Your task to perform on an android device: Open sound settings Image 0: 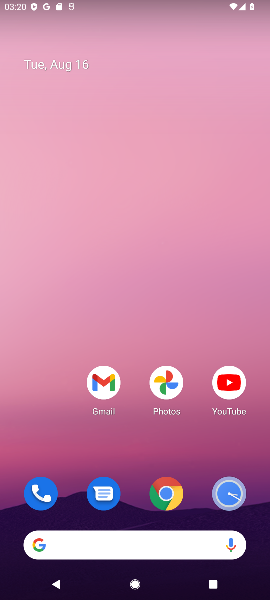
Step 0: press home button
Your task to perform on an android device: Open sound settings Image 1: 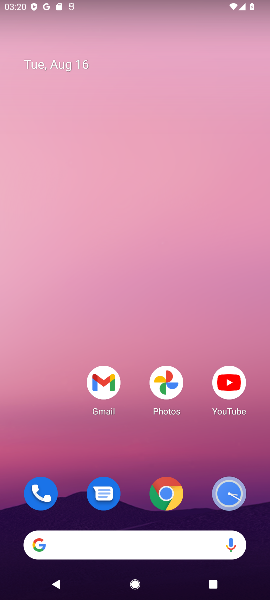
Step 1: drag from (59, 451) to (79, 123)
Your task to perform on an android device: Open sound settings Image 2: 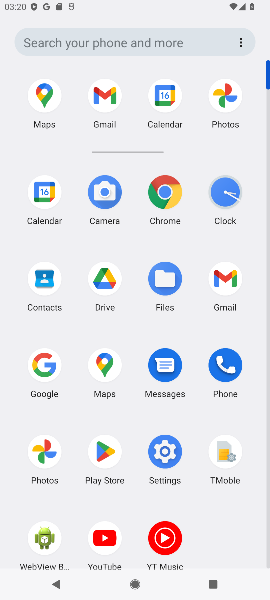
Step 2: click (166, 455)
Your task to perform on an android device: Open sound settings Image 3: 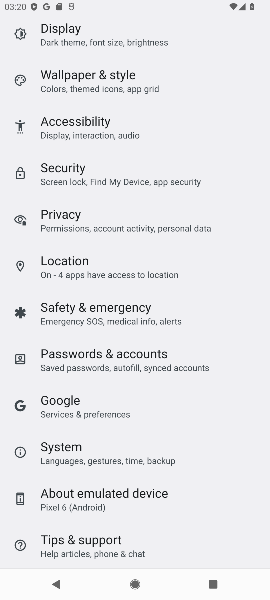
Step 3: drag from (234, 469) to (245, 330)
Your task to perform on an android device: Open sound settings Image 4: 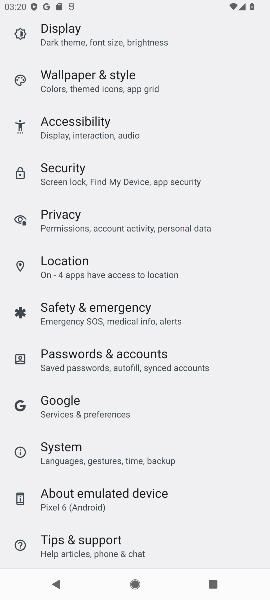
Step 4: drag from (245, 217) to (238, 322)
Your task to perform on an android device: Open sound settings Image 5: 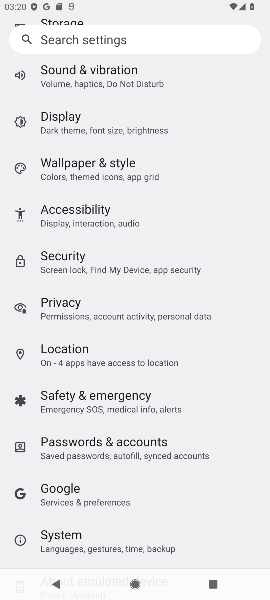
Step 5: drag from (245, 153) to (245, 304)
Your task to perform on an android device: Open sound settings Image 6: 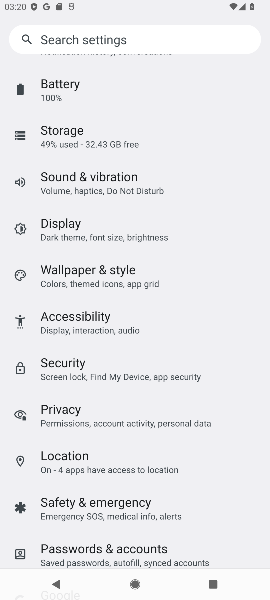
Step 6: drag from (235, 146) to (239, 280)
Your task to perform on an android device: Open sound settings Image 7: 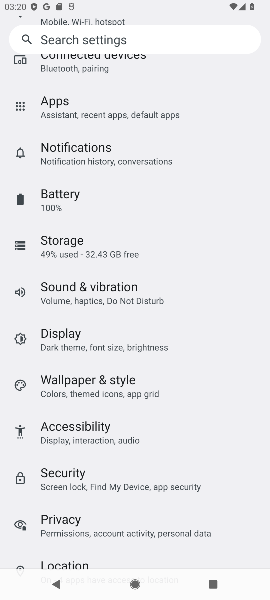
Step 7: drag from (238, 105) to (237, 271)
Your task to perform on an android device: Open sound settings Image 8: 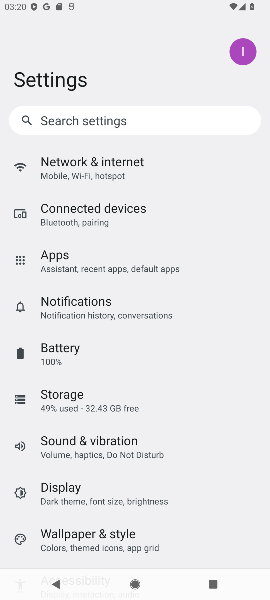
Step 8: drag from (229, 380) to (243, 272)
Your task to perform on an android device: Open sound settings Image 9: 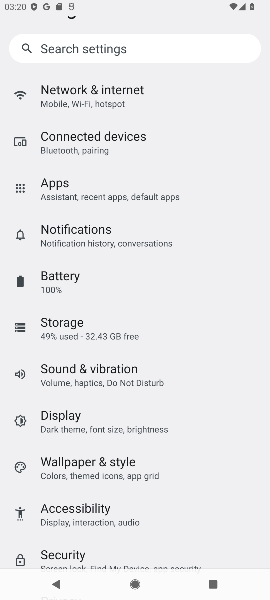
Step 9: drag from (227, 375) to (227, 268)
Your task to perform on an android device: Open sound settings Image 10: 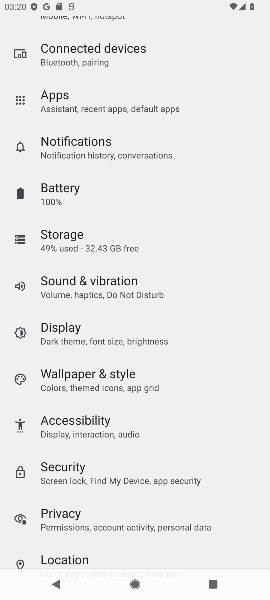
Step 10: click (187, 288)
Your task to perform on an android device: Open sound settings Image 11: 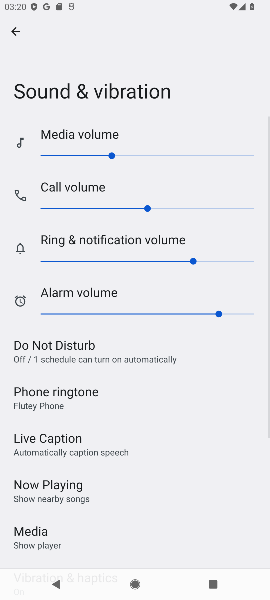
Step 11: task complete